Your task to perform on an android device: check storage Image 0: 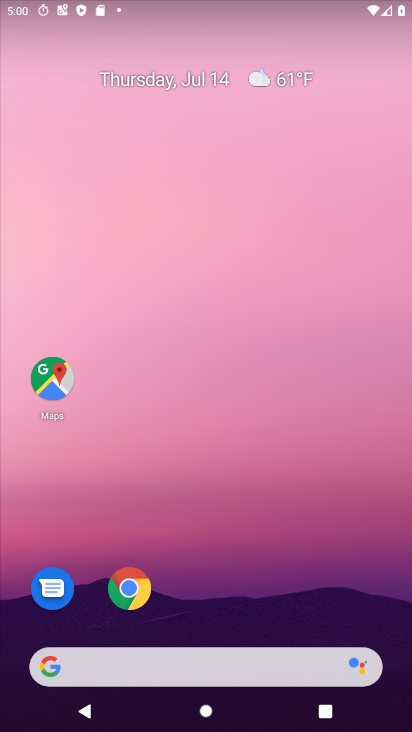
Step 0: drag from (190, 674) to (275, 80)
Your task to perform on an android device: check storage Image 1: 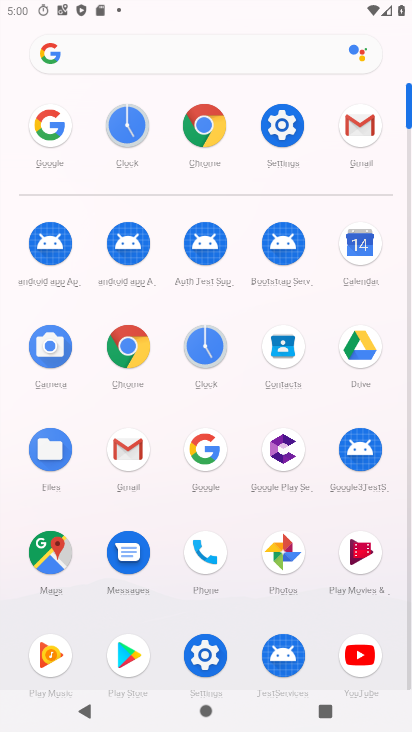
Step 1: click (281, 127)
Your task to perform on an android device: check storage Image 2: 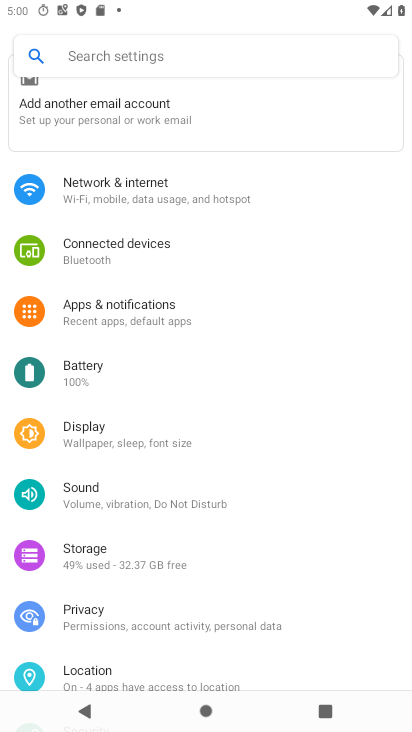
Step 2: click (82, 559)
Your task to perform on an android device: check storage Image 3: 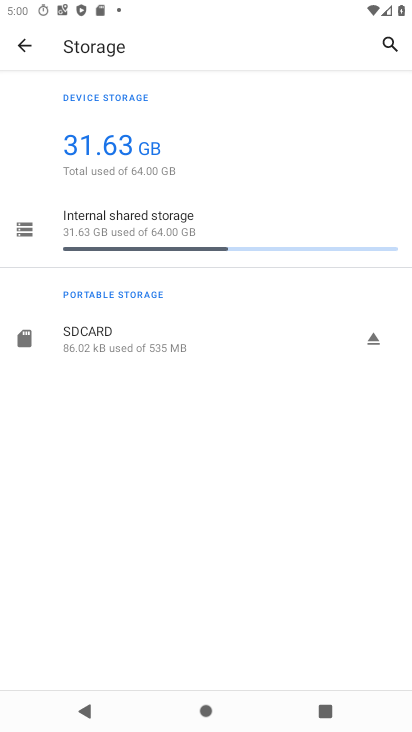
Step 3: task complete